Your task to perform on an android device: visit the assistant section in the google photos Image 0: 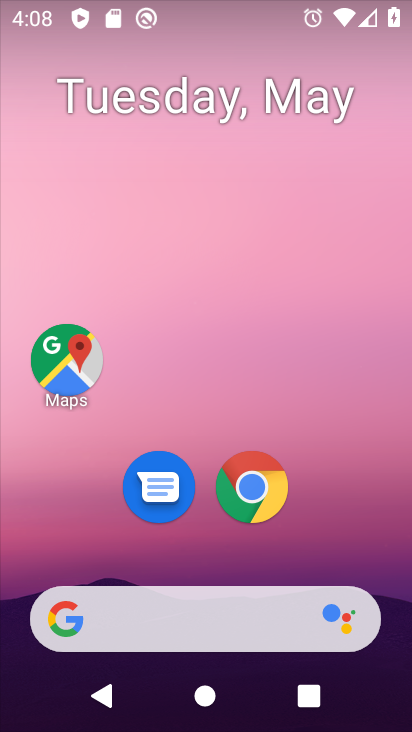
Step 0: drag from (356, 482) to (321, 13)
Your task to perform on an android device: visit the assistant section in the google photos Image 1: 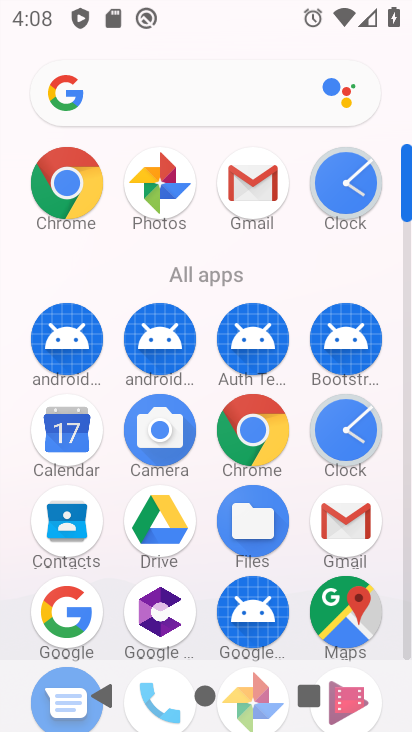
Step 1: click (162, 184)
Your task to perform on an android device: visit the assistant section in the google photos Image 2: 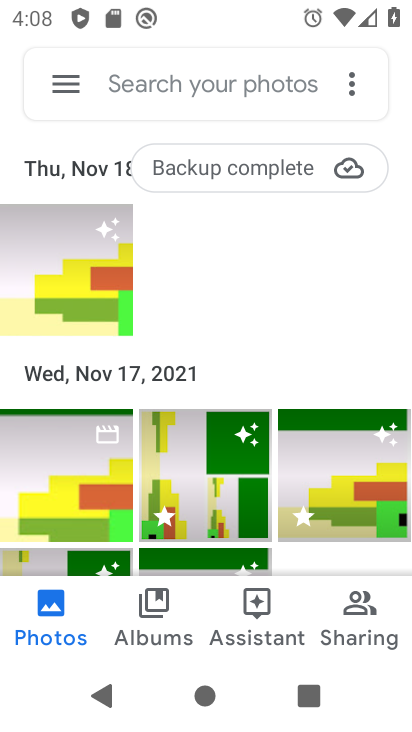
Step 2: click (258, 607)
Your task to perform on an android device: visit the assistant section in the google photos Image 3: 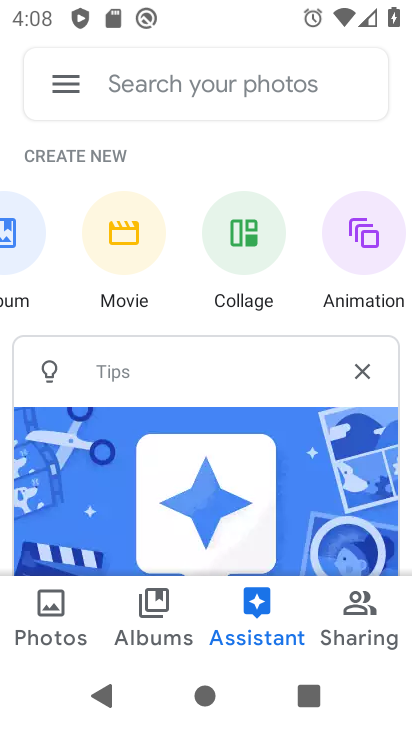
Step 3: task complete